Your task to perform on an android device: Go to settings Image 0: 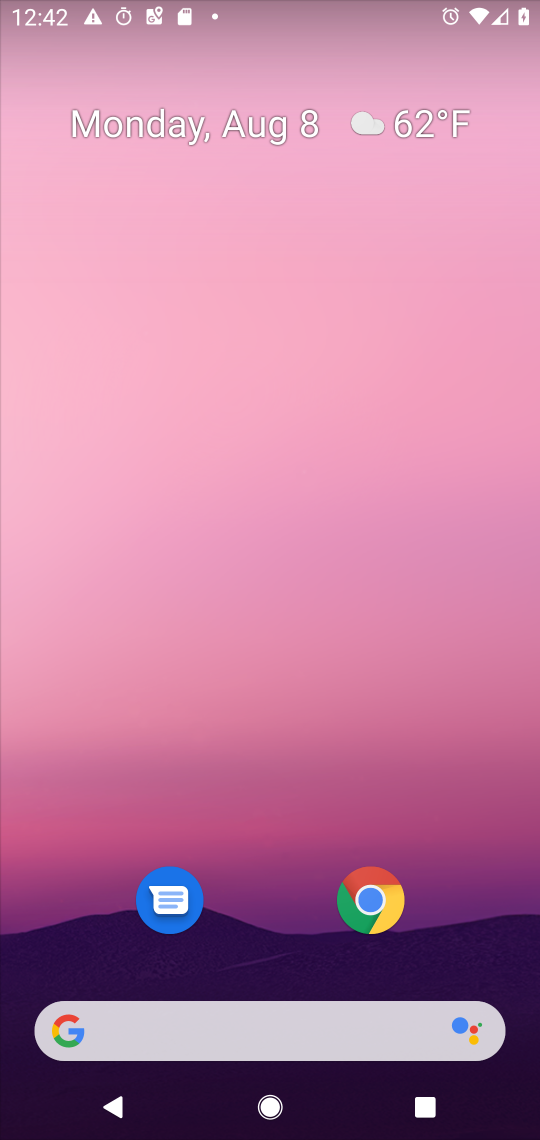
Step 0: press home button
Your task to perform on an android device: Go to settings Image 1: 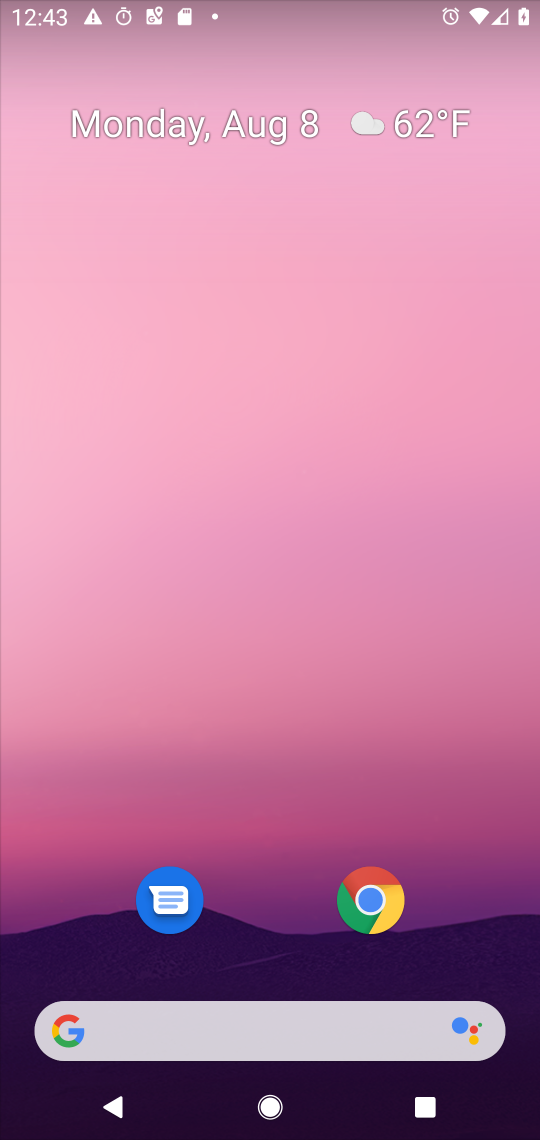
Step 1: drag from (291, 960) to (390, 25)
Your task to perform on an android device: Go to settings Image 2: 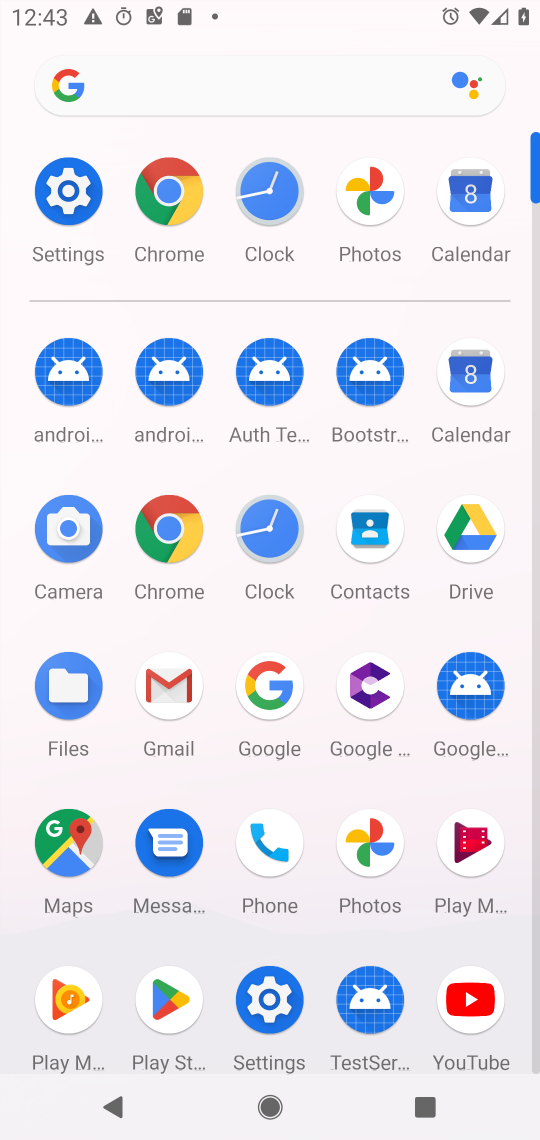
Step 2: click (262, 990)
Your task to perform on an android device: Go to settings Image 3: 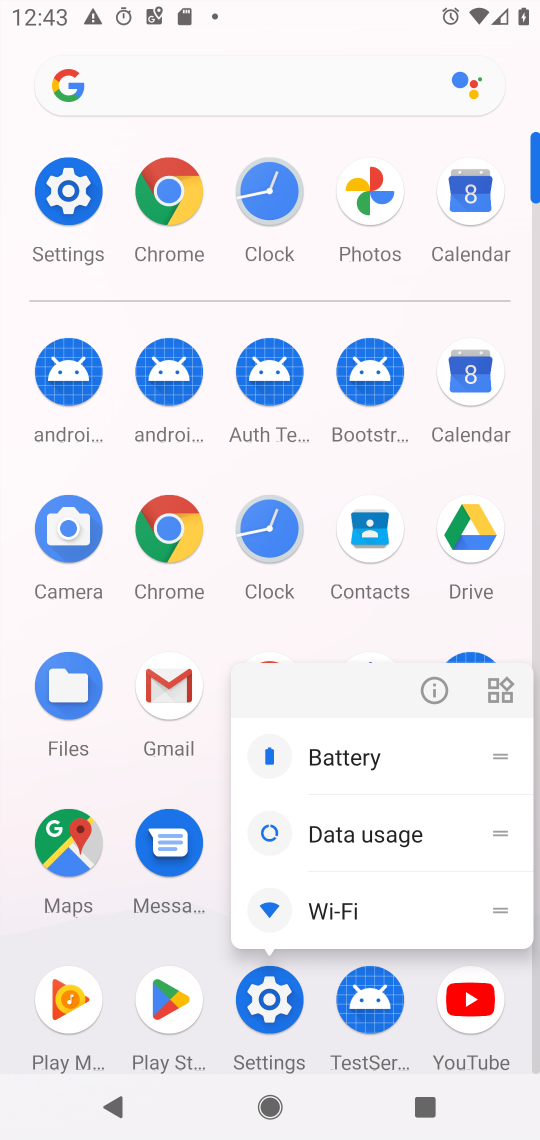
Step 3: click (266, 990)
Your task to perform on an android device: Go to settings Image 4: 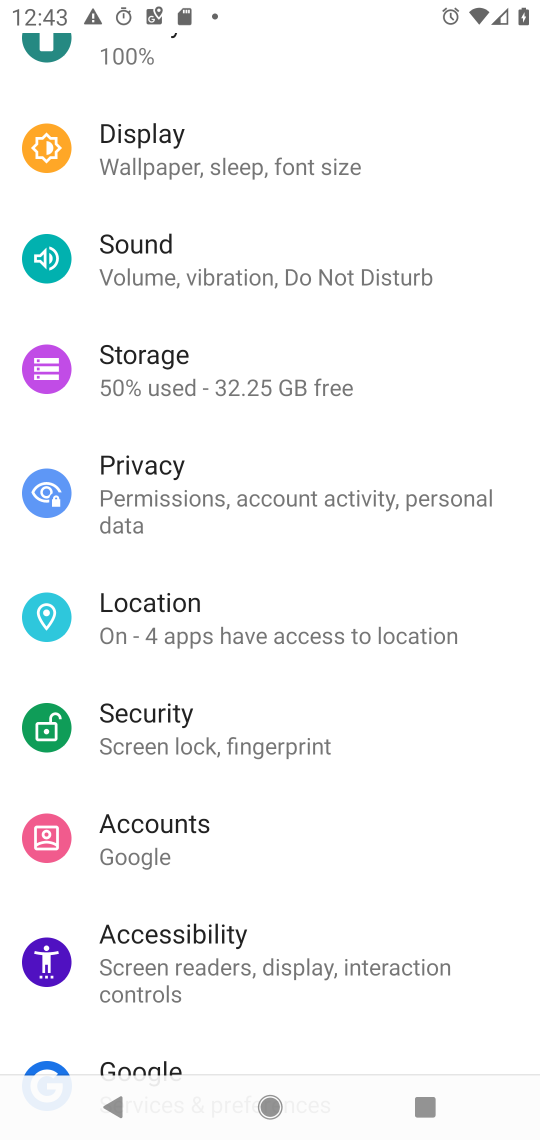
Step 4: task complete